Your task to perform on an android device: Open network settings Image 0: 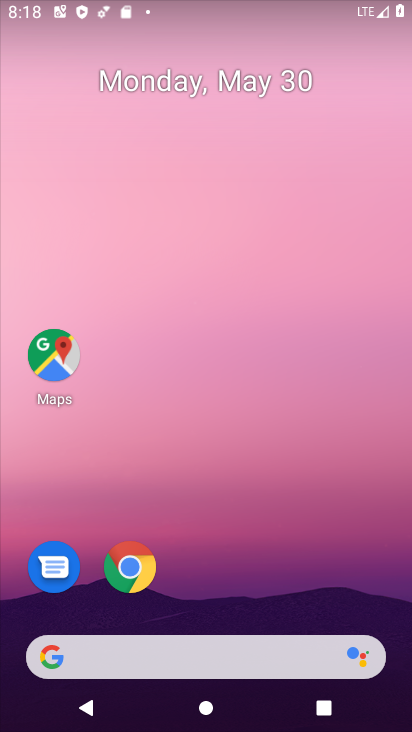
Step 0: drag from (277, 615) to (282, 94)
Your task to perform on an android device: Open network settings Image 1: 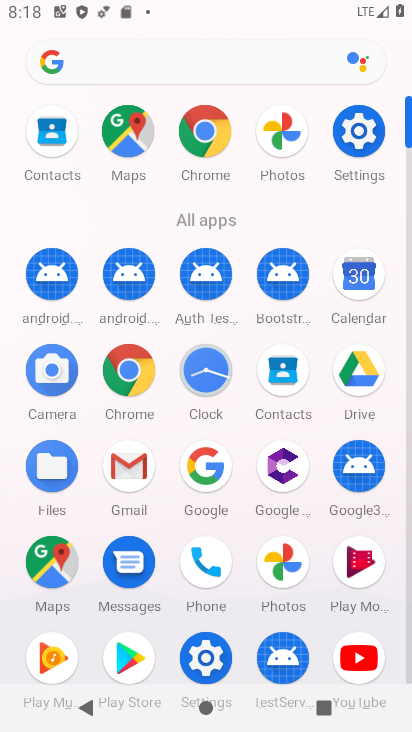
Step 1: click (361, 164)
Your task to perform on an android device: Open network settings Image 2: 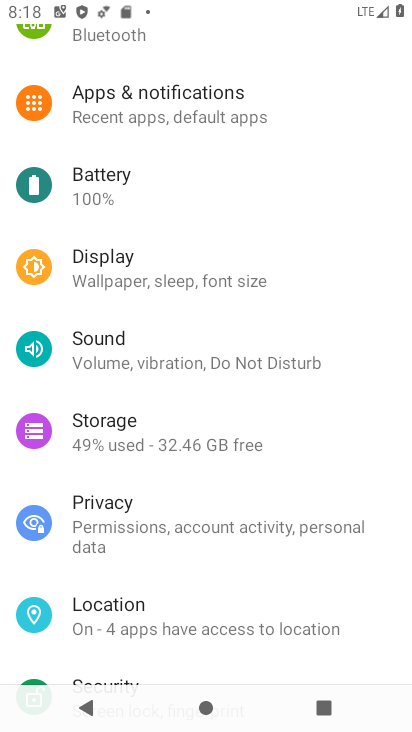
Step 2: drag from (175, 188) to (300, 619)
Your task to perform on an android device: Open network settings Image 3: 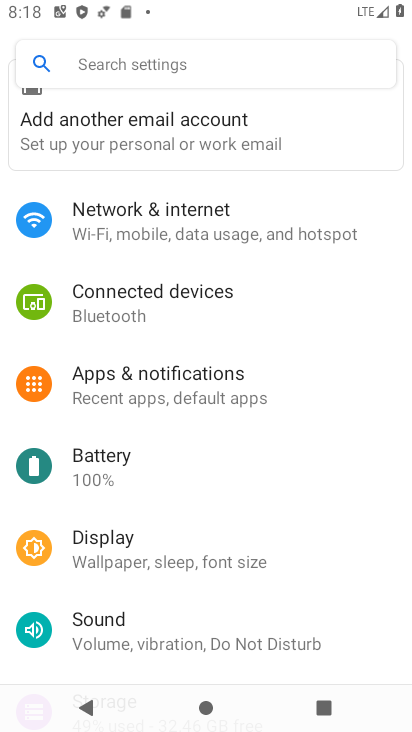
Step 3: click (269, 234)
Your task to perform on an android device: Open network settings Image 4: 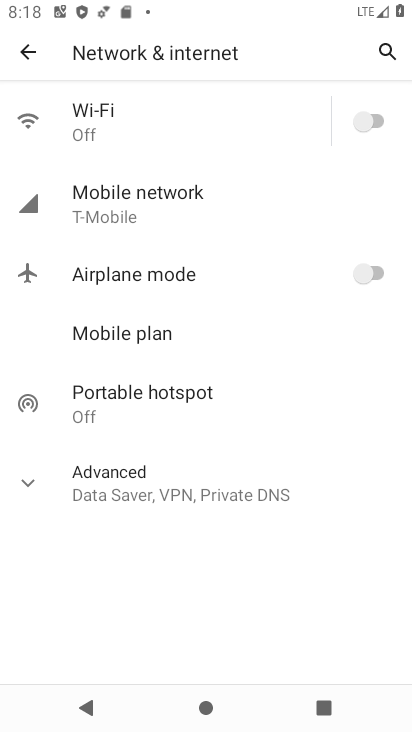
Step 4: task complete